Your task to perform on an android device: Go to Maps Image 0: 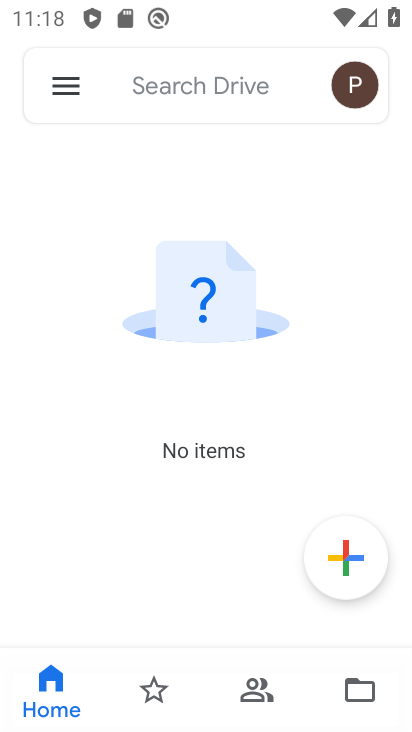
Step 0: press back button
Your task to perform on an android device: Go to Maps Image 1: 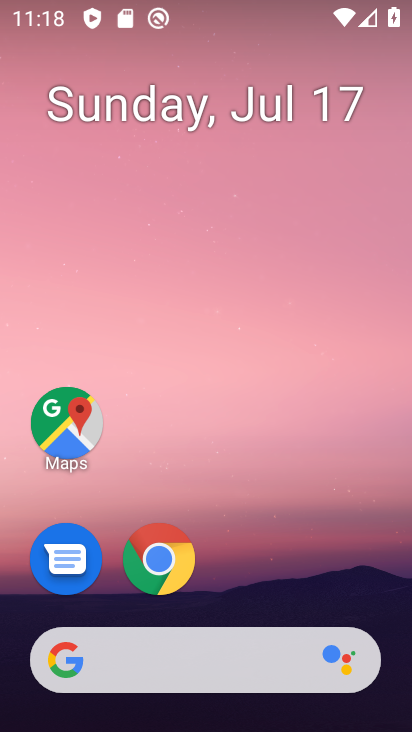
Step 1: click (86, 423)
Your task to perform on an android device: Go to Maps Image 2: 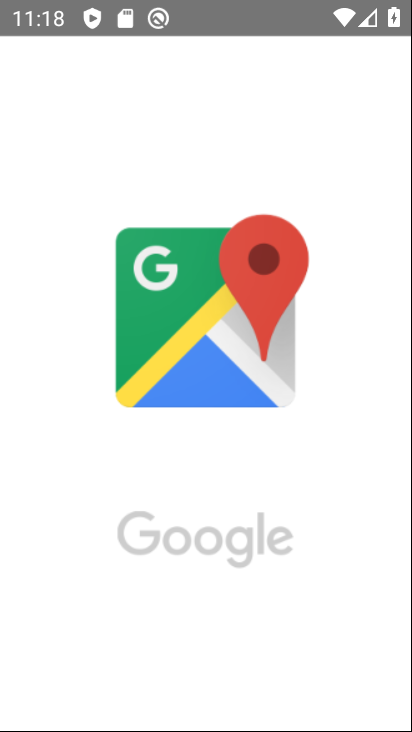
Step 2: task complete